Your task to perform on an android device: turn on data saver in the chrome app Image 0: 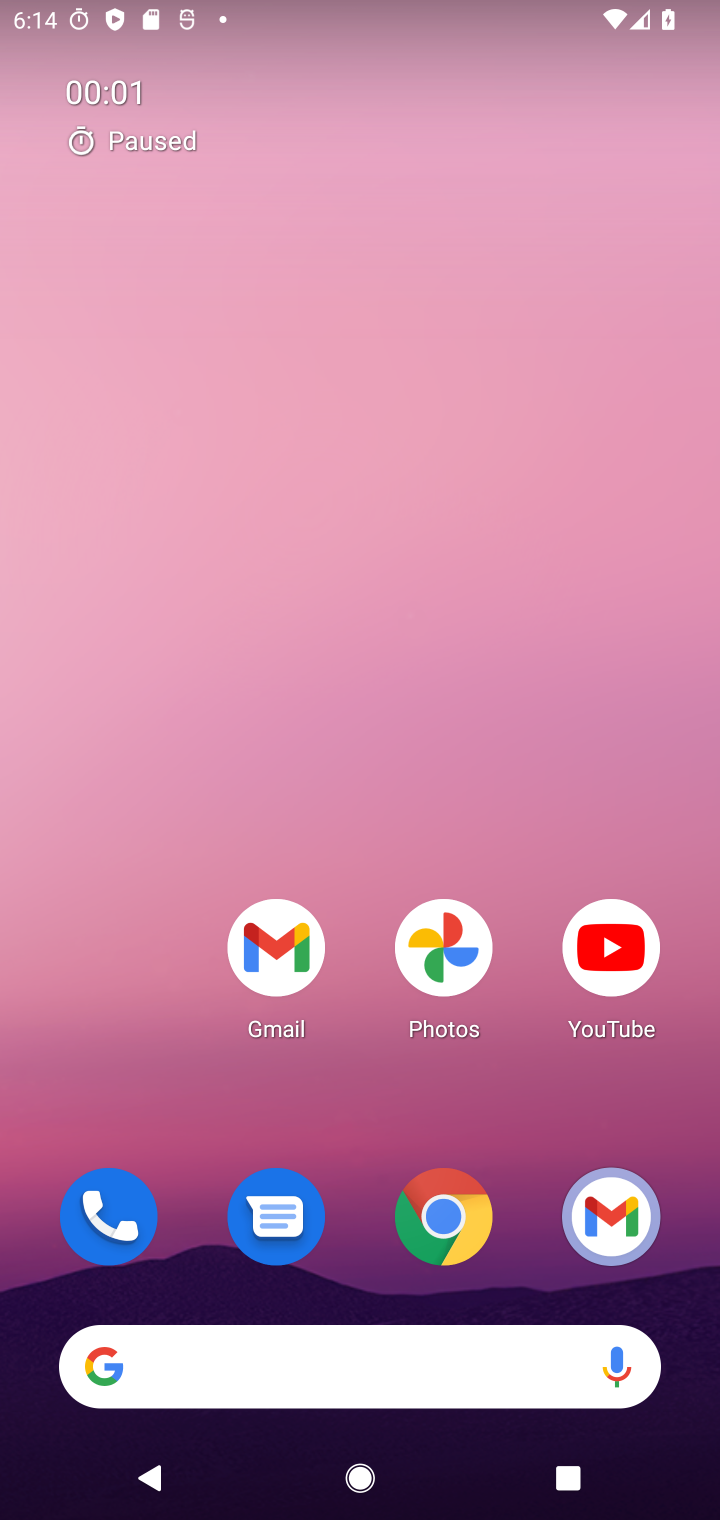
Step 0: drag from (367, 1109) to (369, 88)
Your task to perform on an android device: turn on data saver in the chrome app Image 1: 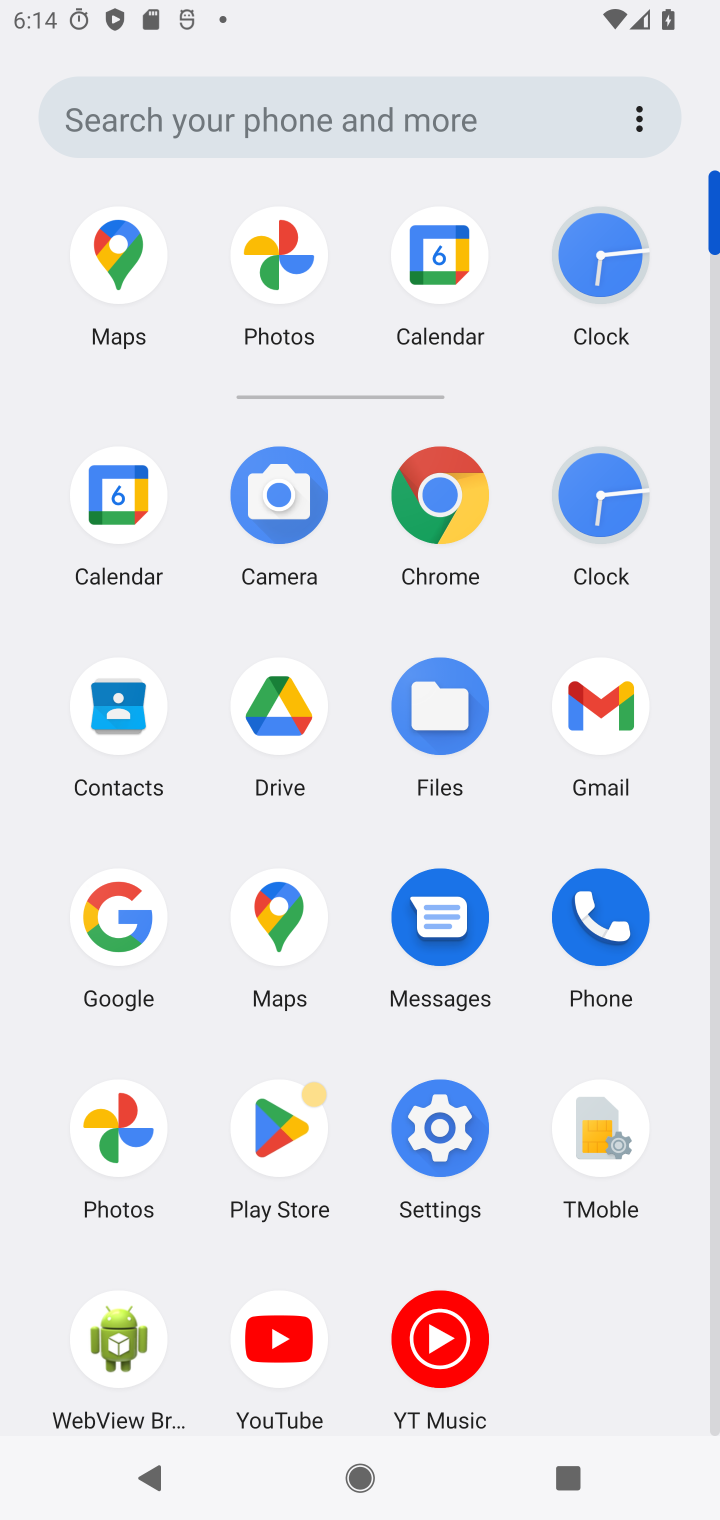
Step 1: click (439, 506)
Your task to perform on an android device: turn on data saver in the chrome app Image 2: 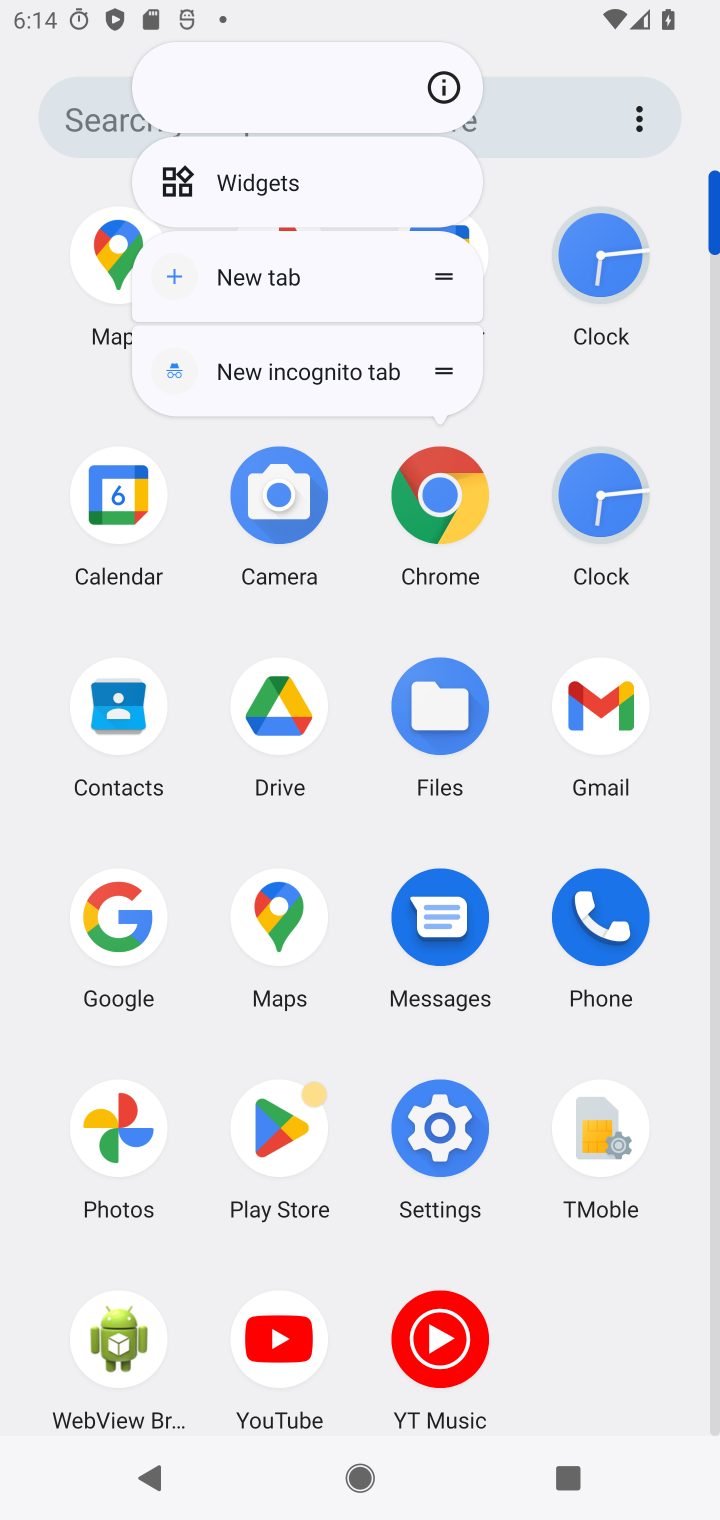
Step 2: click (439, 506)
Your task to perform on an android device: turn on data saver in the chrome app Image 3: 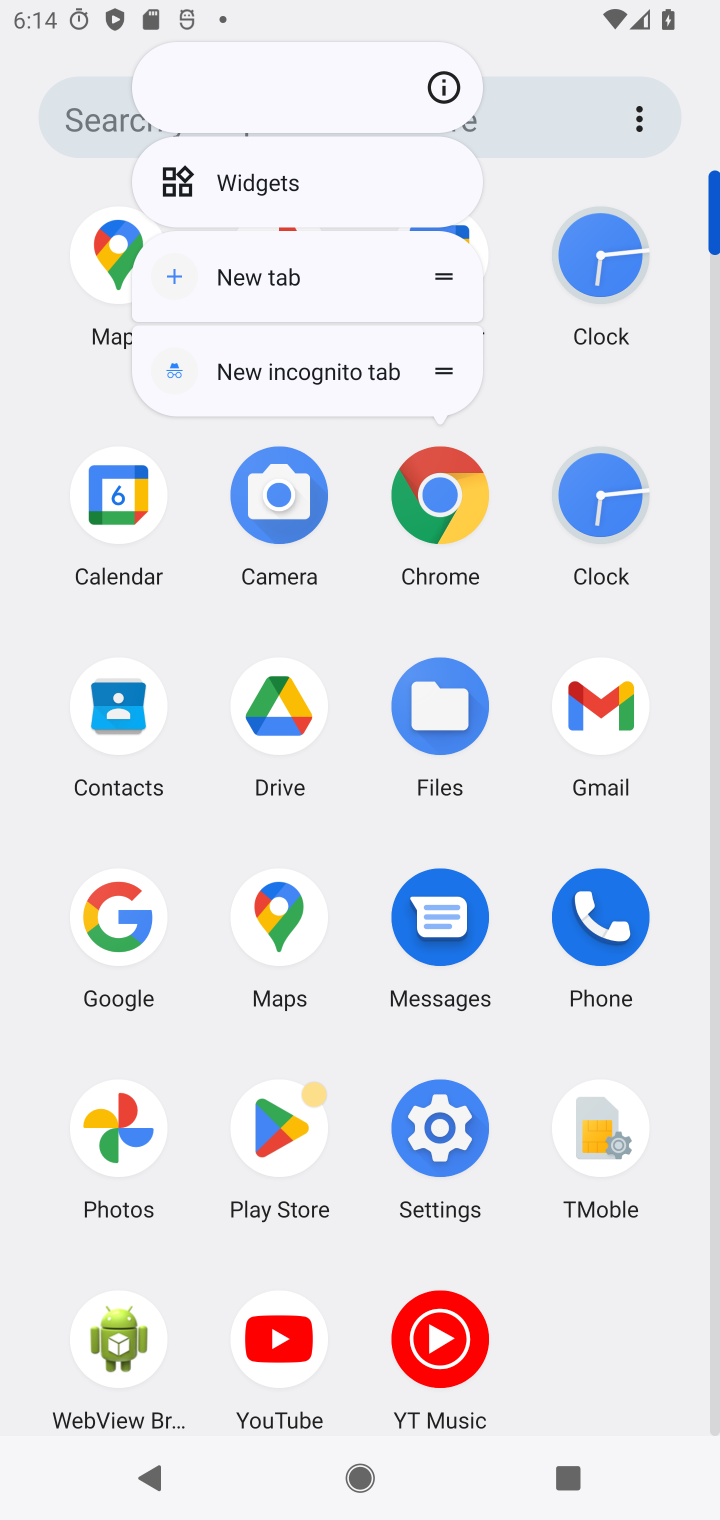
Step 3: click (629, 1358)
Your task to perform on an android device: turn on data saver in the chrome app Image 4: 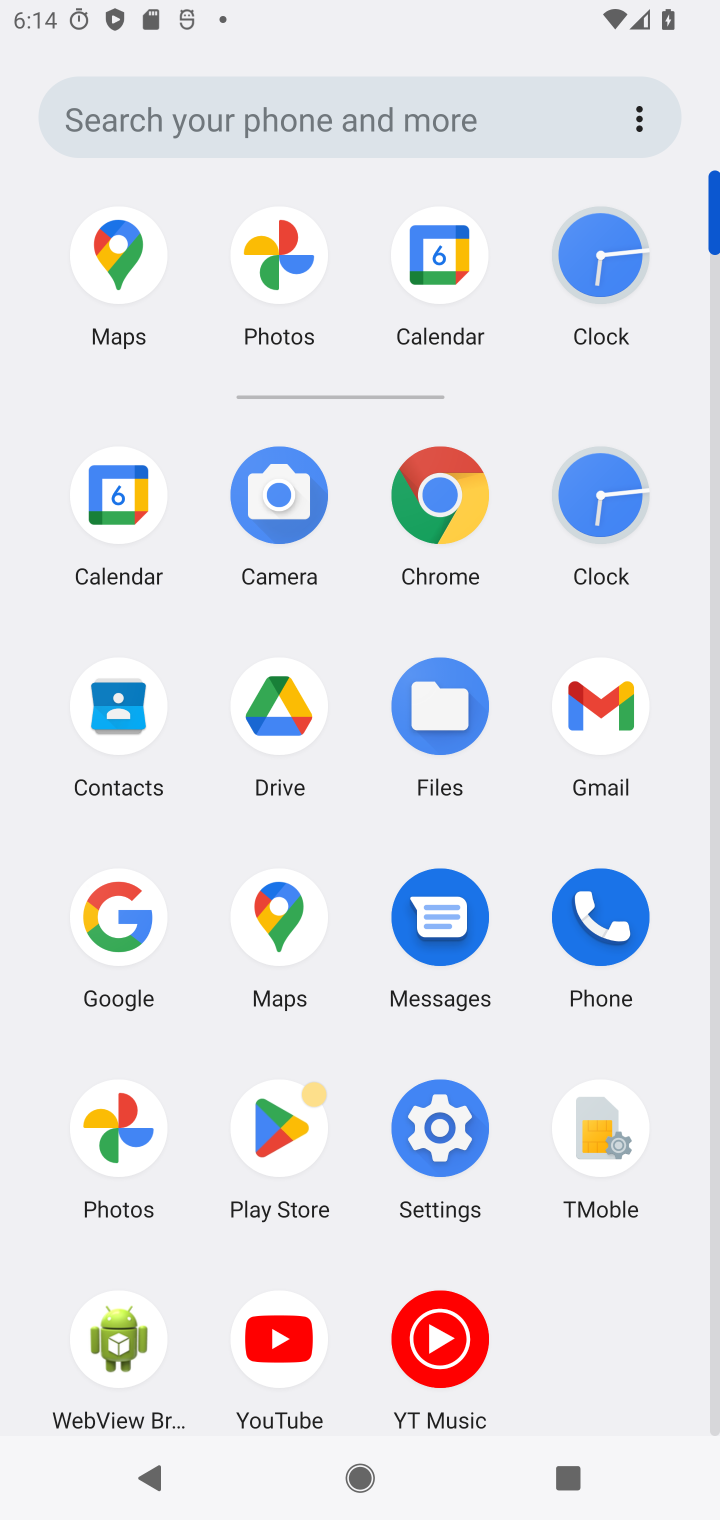
Step 4: click (437, 492)
Your task to perform on an android device: turn on data saver in the chrome app Image 5: 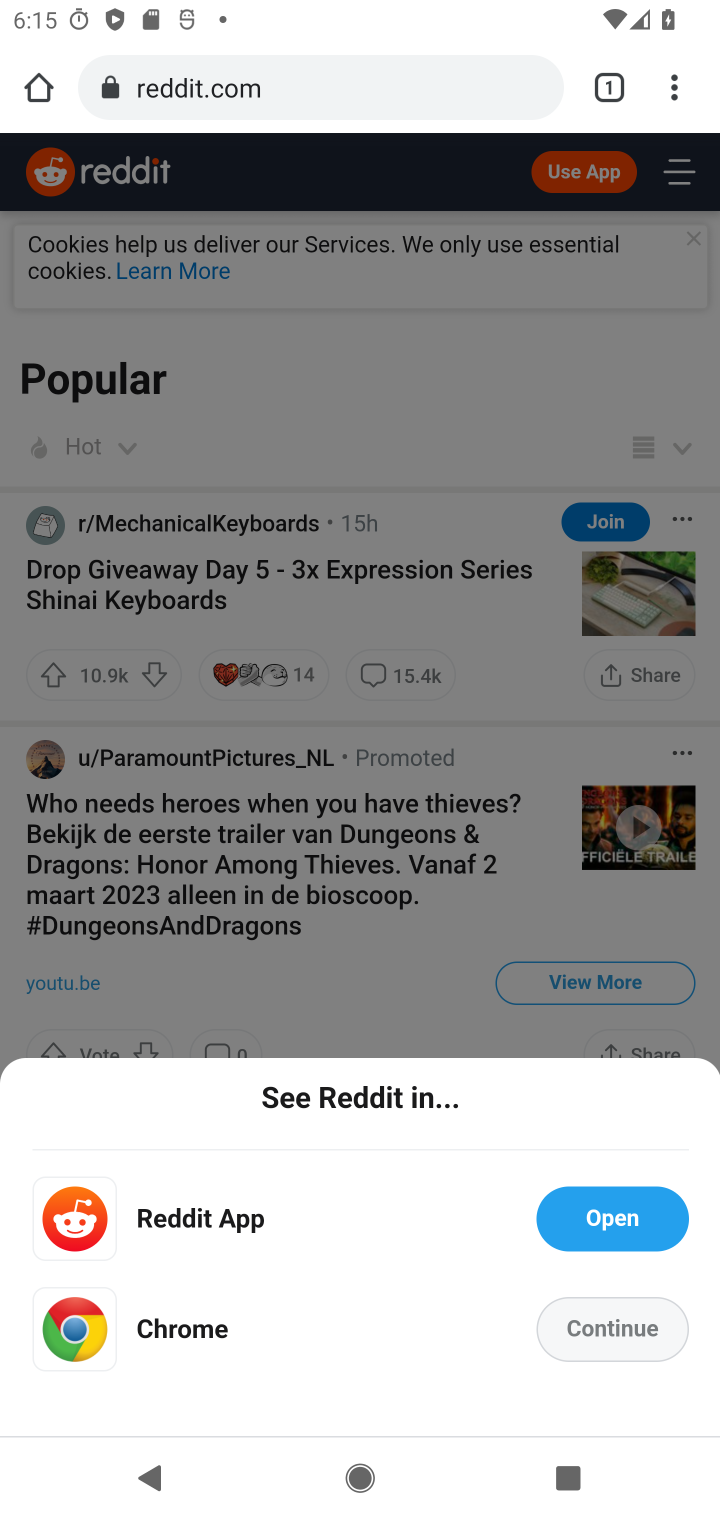
Step 5: drag from (669, 78) to (432, 1188)
Your task to perform on an android device: turn on data saver in the chrome app Image 6: 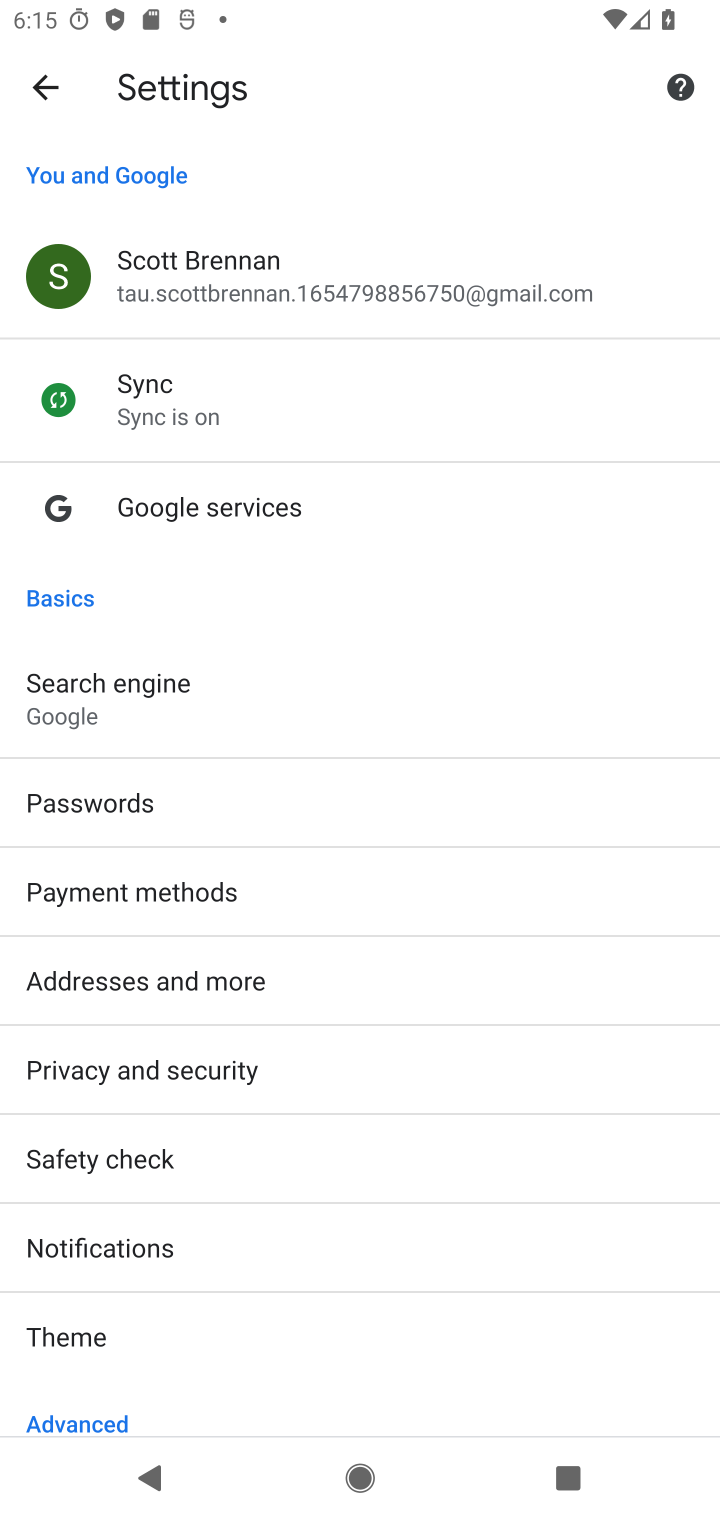
Step 6: drag from (417, 1110) to (400, 254)
Your task to perform on an android device: turn on data saver in the chrome app Image 7: 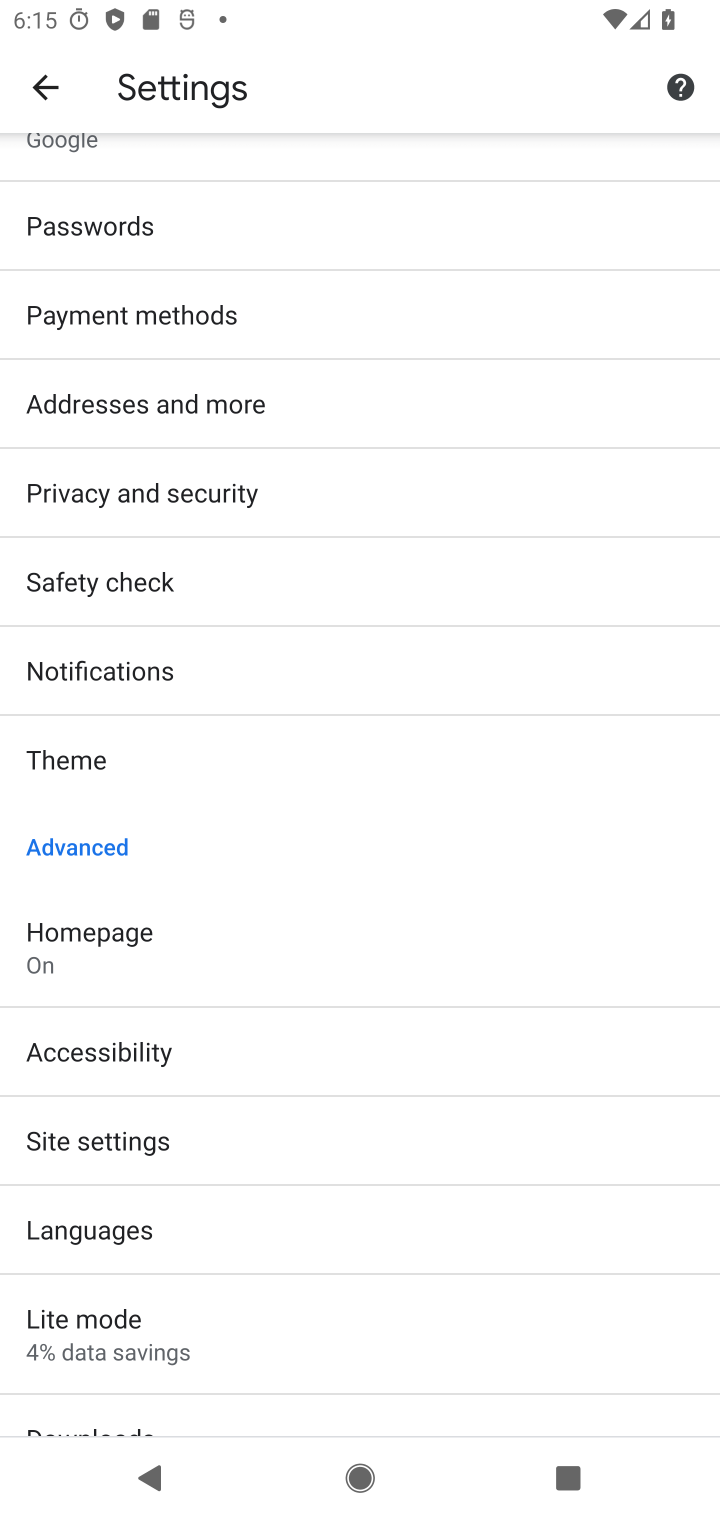
Step 7: drag from (258, 1323) to (368, 562)
Your task to perform on an android device: turn on data saver in the chrome app Image 8: 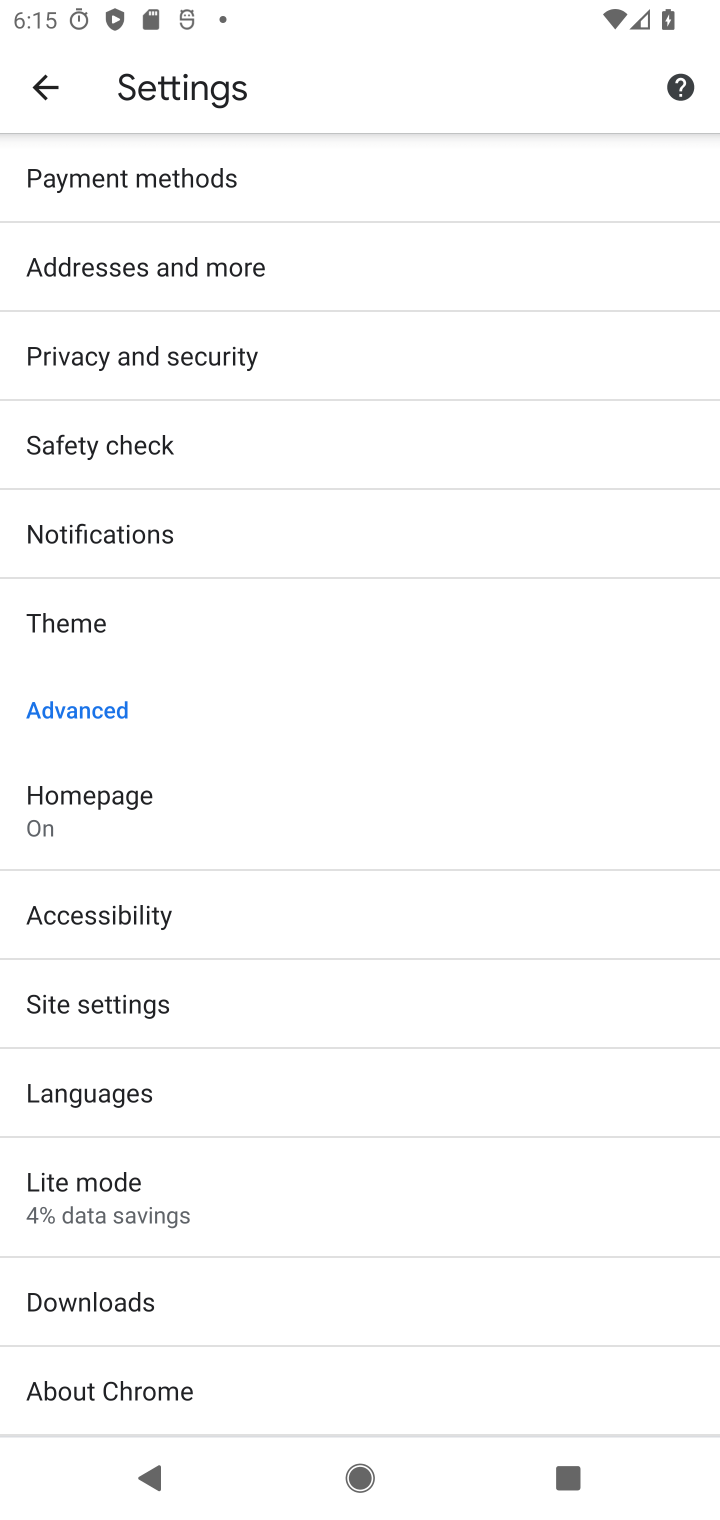
Step 8: click (145, 1215)
Your task to perform on an android device: turn on data saver in the chrome app Image 9: 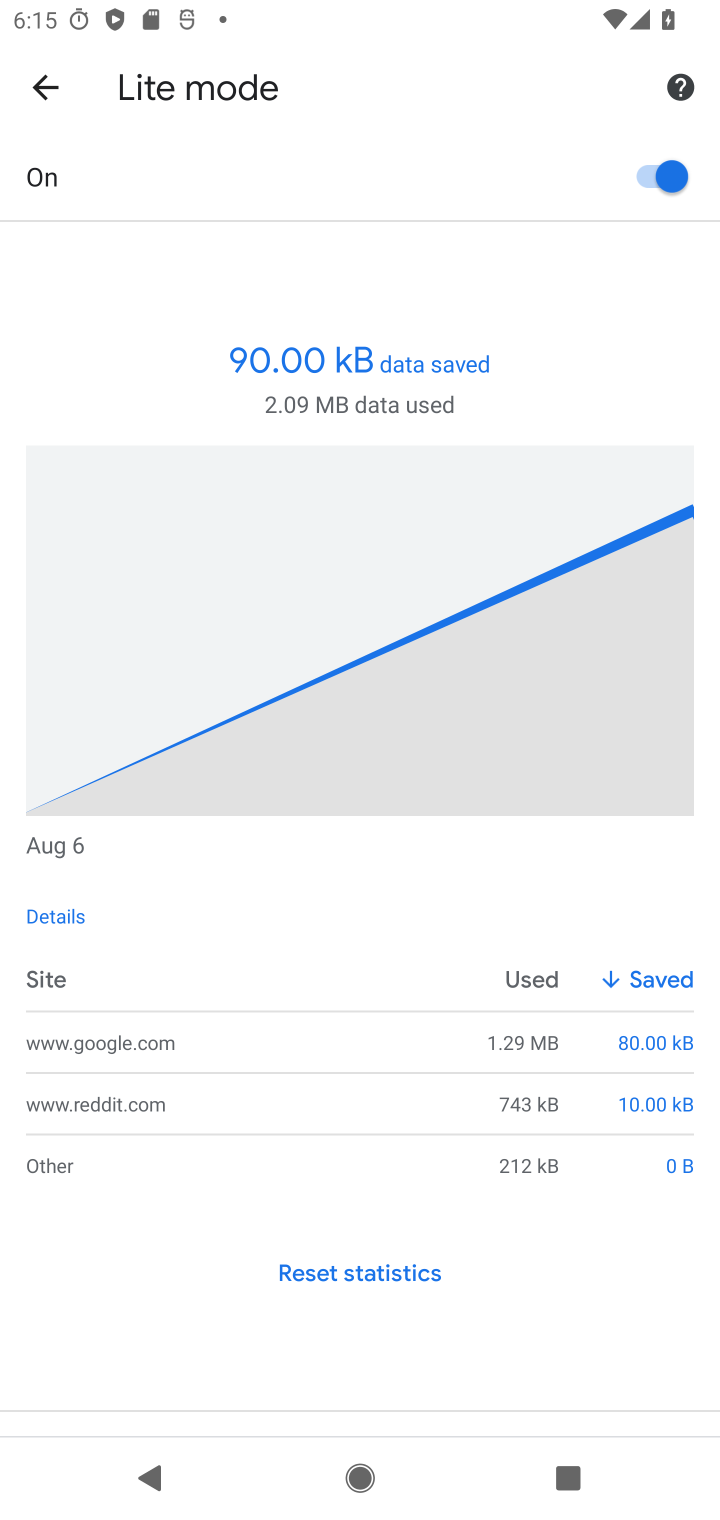
Step 9: task complete